Your task to perform on an android device: allow cookies in the chrome app Image 0: 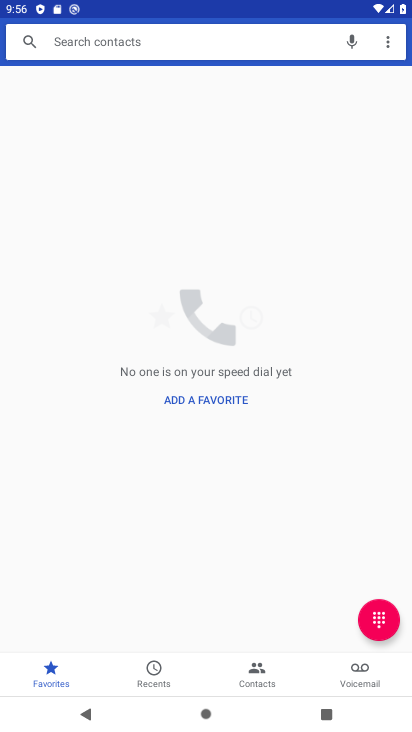
Step 0: press home button
Your task to perform on an android device: allow cookies in the chrome app Image 1: 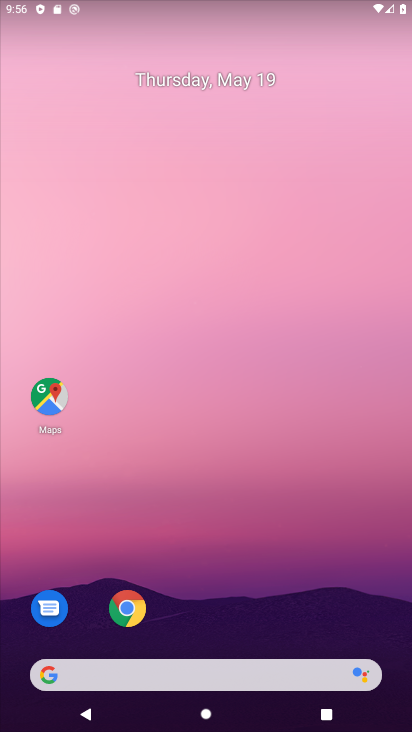
Step 1: click (142, 614)
Your task to perform on an android device: allow cookies in the chrome app Image 2: 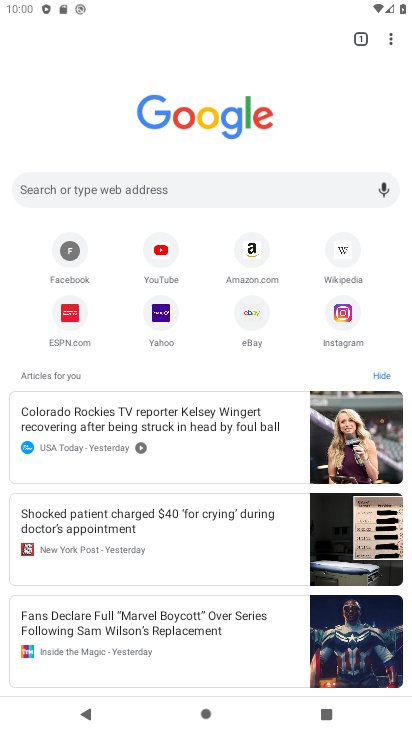
Step 2: click (386, 40)
Your task to perform on an android device: allow cookies in the chrome app Image 3: 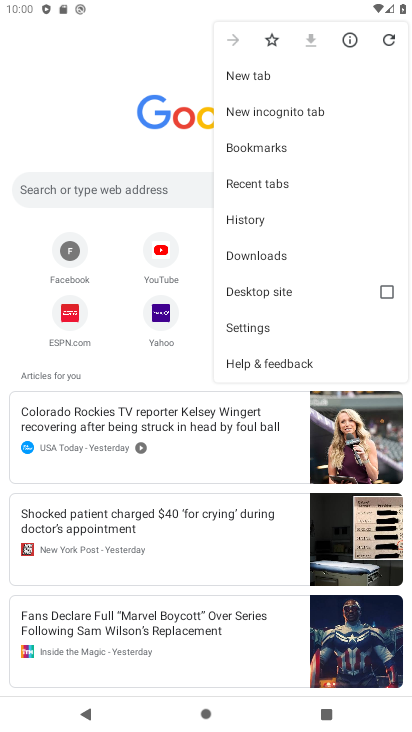
Step 3: click (285, 324)
Your task to perform on an android device: allow cookies in the chrome app Image 4: 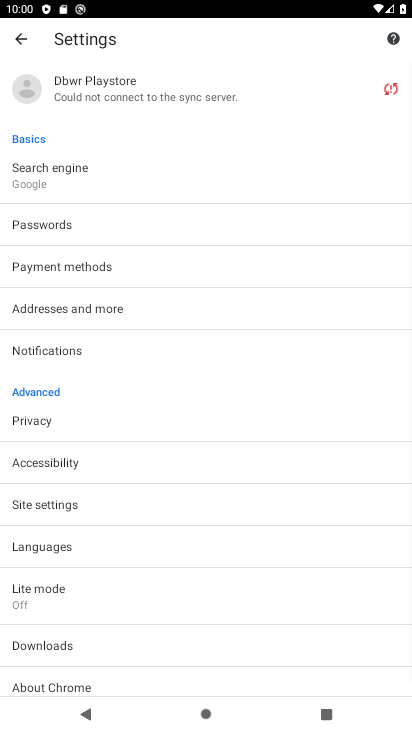
Step 4: click (150, 495)
Your task to perform on an android device: allow cookies in the chrome app Image 5: 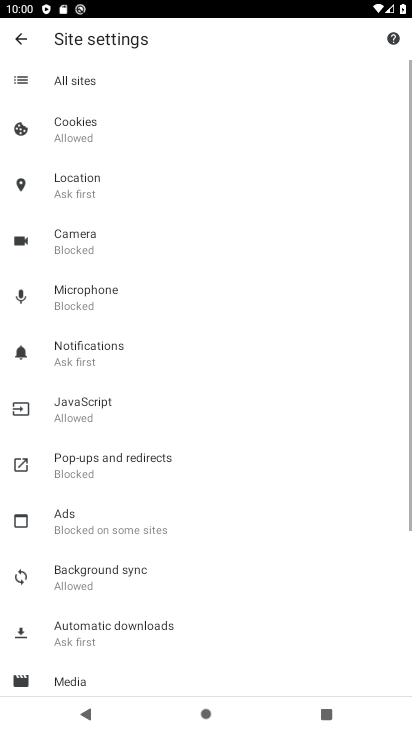
Step 5: click (289, 145)
Your task to perform on an android device: allow cookies in the chrome app Image 6: 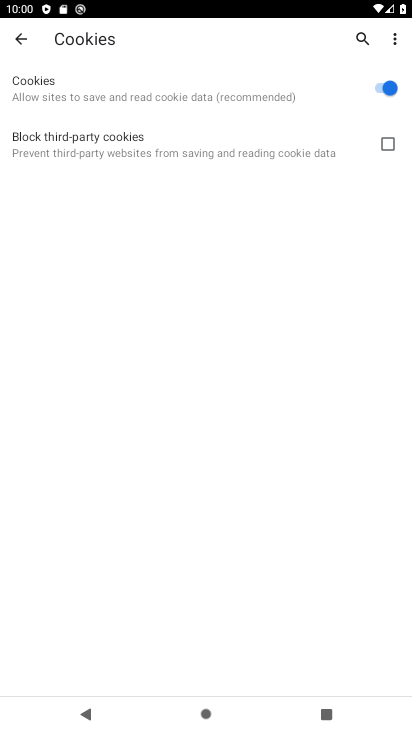
Step 6: task complete